Your task to perform on an android device: star an email in the gmail app Image 0: 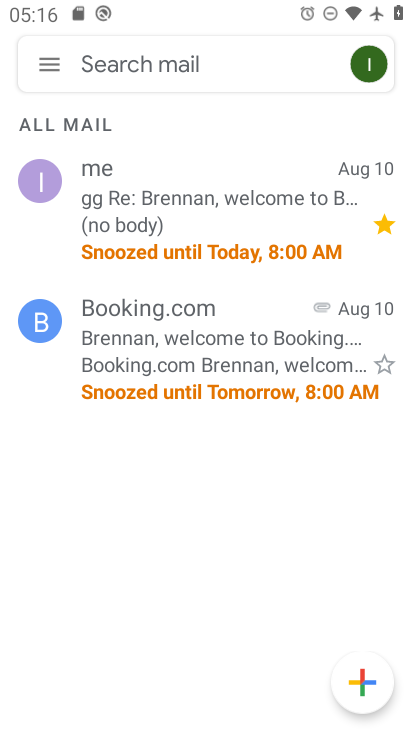
Step 0: press home button
Your task to perform on an android device: star an email in the gmail app Image 1: 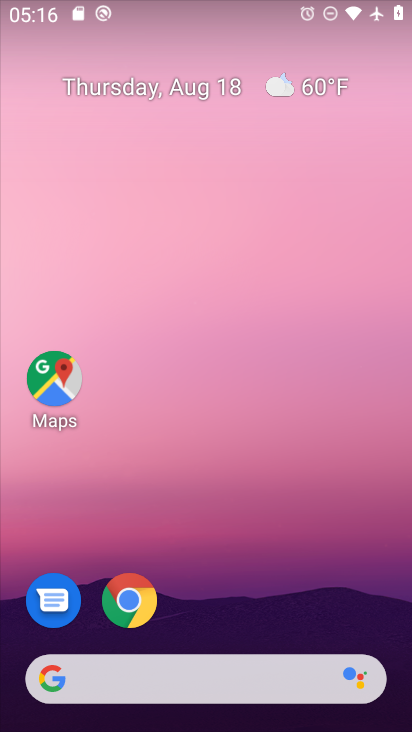
Step 1: drag from (274, 632) to (314, 43)
Your task to perform on an android device: star an email in the gmail app Image 2: 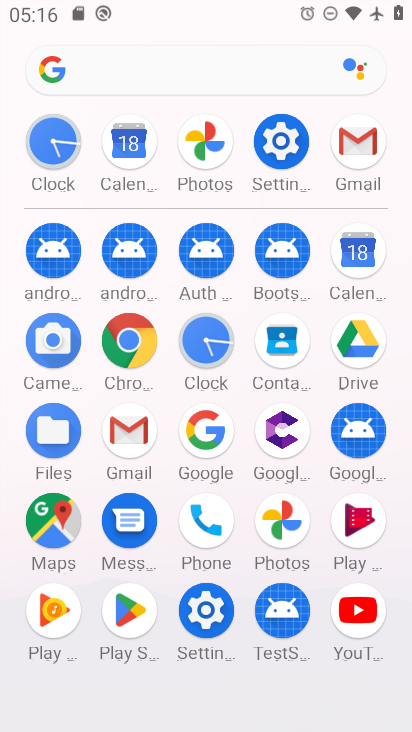
Step 2: click (337, 148)
Your task to perform on an android device: star an email in the gmail app Image 3: 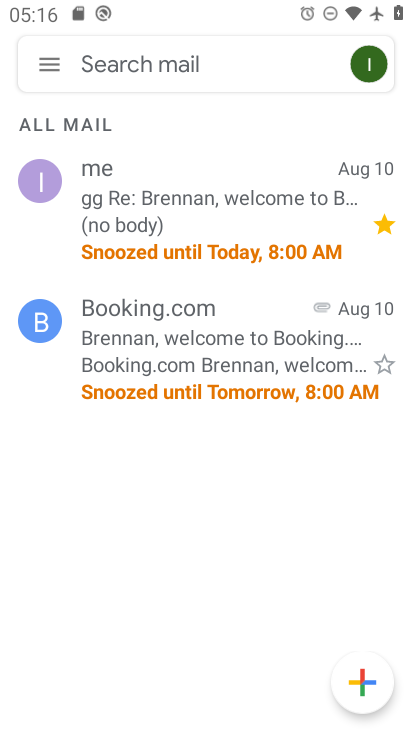
Step 3: click (388, 369)
Your task to perform on an android device: star an email in the gmail app Image 4: 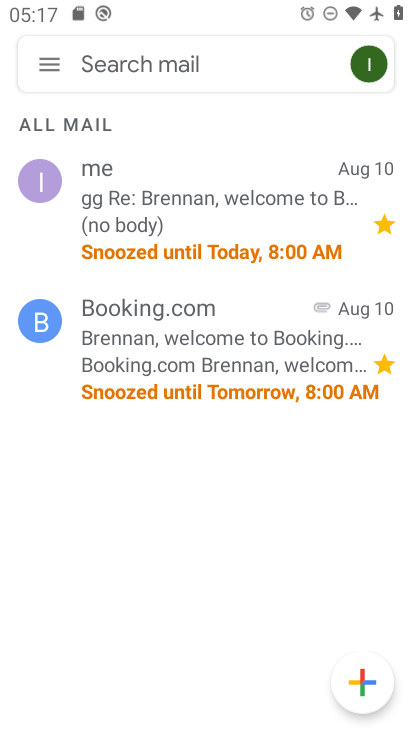
Step 4: task complete